Your task to perform on an android device: Open calendar and show me the third week of next month Image 0: 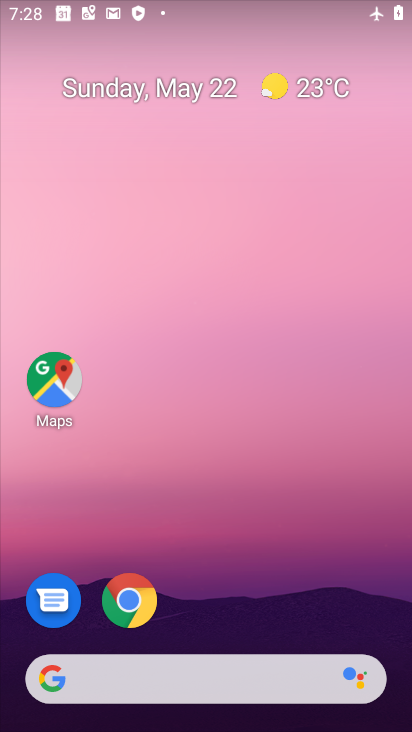
Step 0: drag from (385, 637) to (279, 48)
Your task to perform on an android device: Open calendar and show me the third week of next month Image 1: 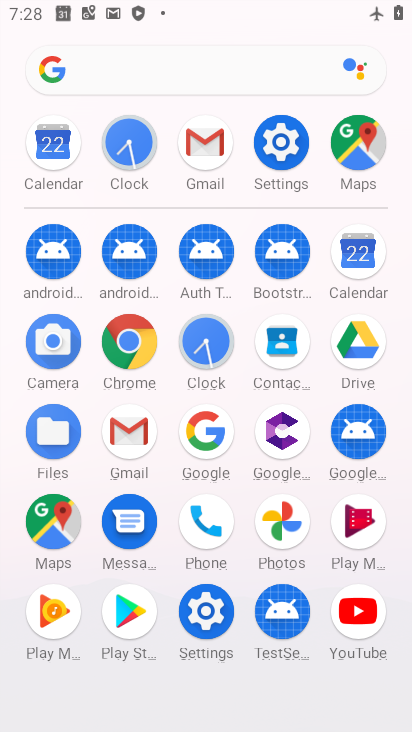
Step 1: click (368, 258)
Your task to perform on an android device: Open calendar and show me the third week of next month Image 2: 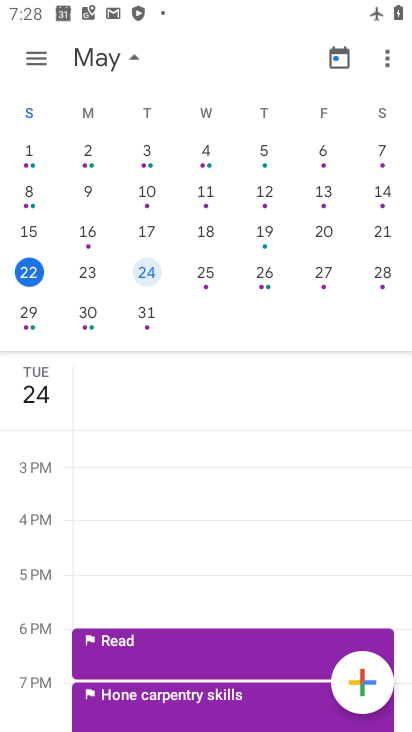
Step 2: drag from (373, 225) to (4, 210)
Your task to perform on an android device: Open calendar and show me the third week of next month Image 3: 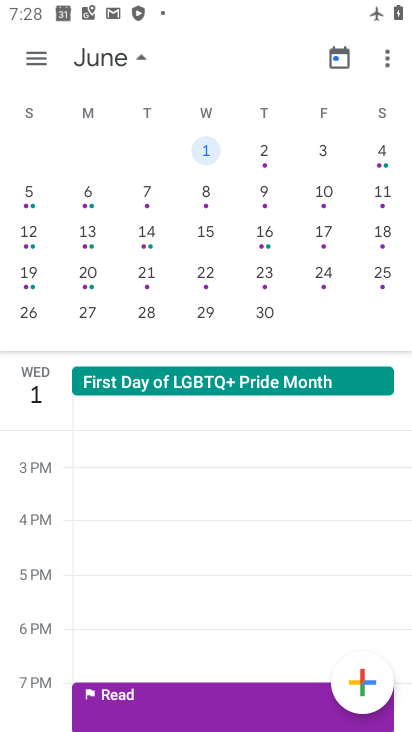
Step 3: click (87, 282)
Your task to perform on an android device: Open calendar and show me the third week of next month Image 4: 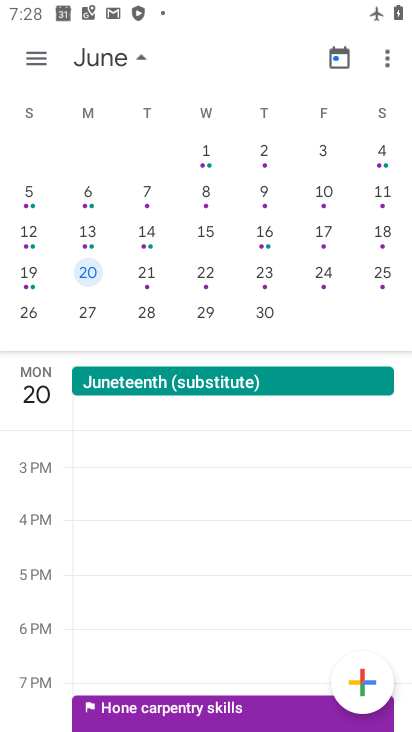
Step 4: task complete